Your task to perform on an android device: turn on location history Image 0: 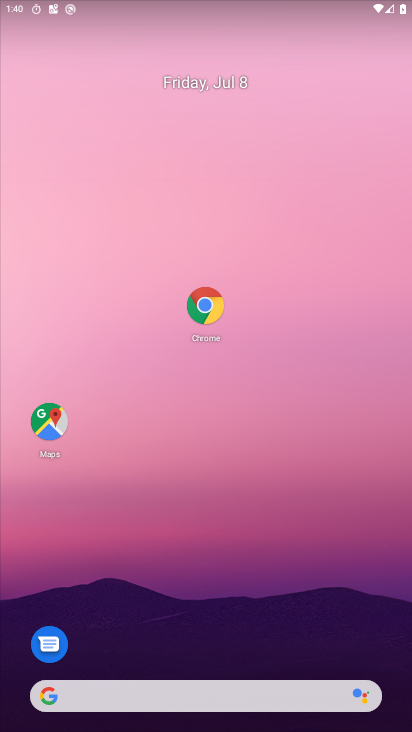
Step 0: drag from (260, 571) to (331, 190)
Your task to perform on an android device: turn on location history Image 1: 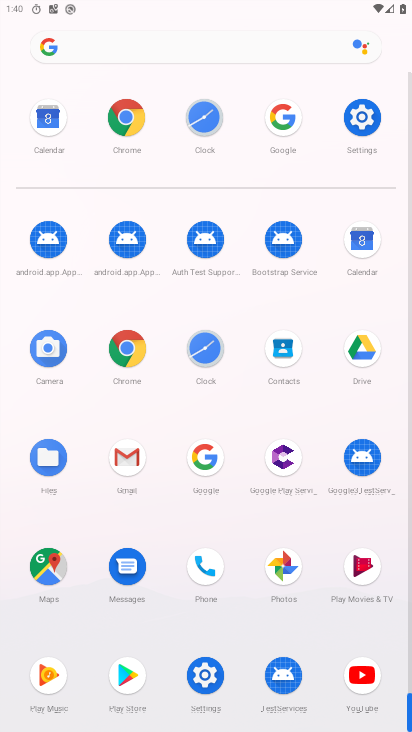
Step 1: click (365, 118)
Your task to perform on an android device: turn on location history Image 2: 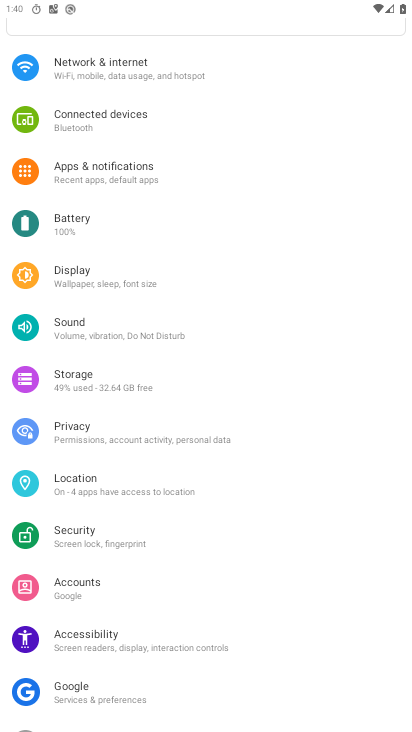
Step 2: click (95, 485)
Your task to perform on an android device: turn on location history Image 3: 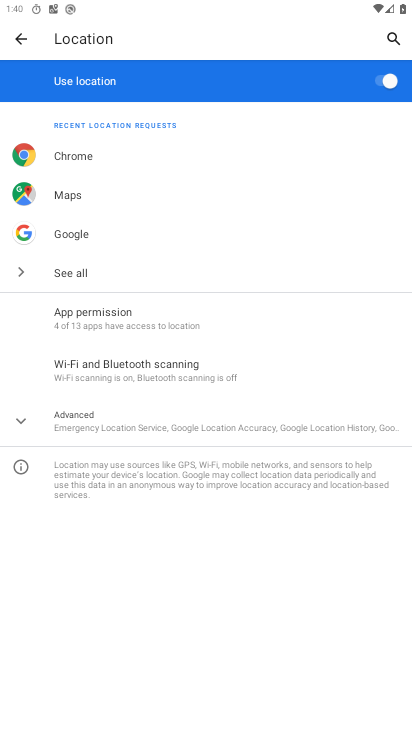
Step 3: click (94, 424)
Your task to perform on an android device: turn on location history Image 4: 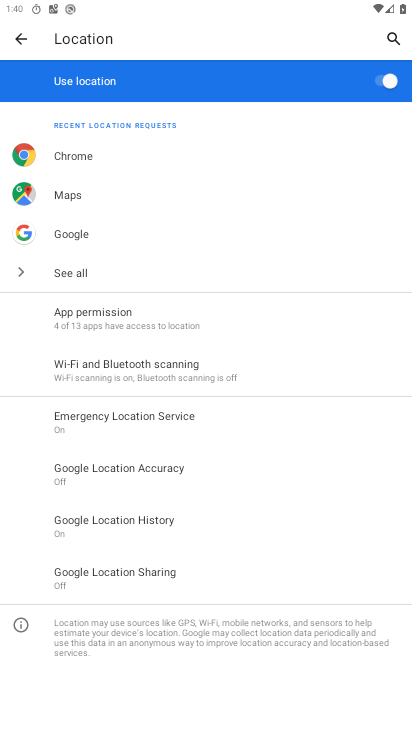
Step 4: click (140, 515)
Your task to perform on an android device: turn on location history Image 5: 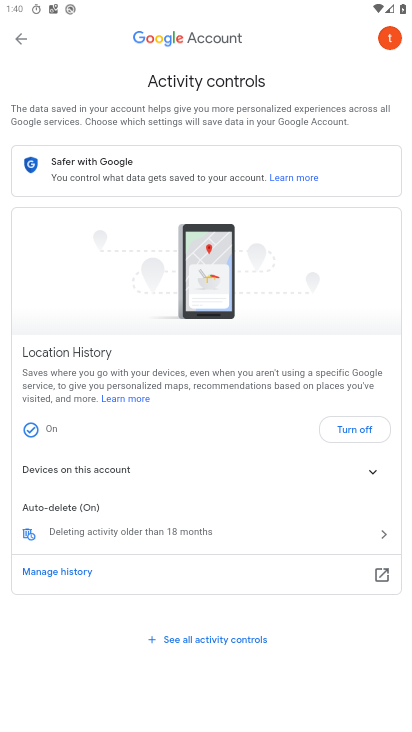
Step 5: task complete